Your task to perform on an android device: Go to settings Image 0: 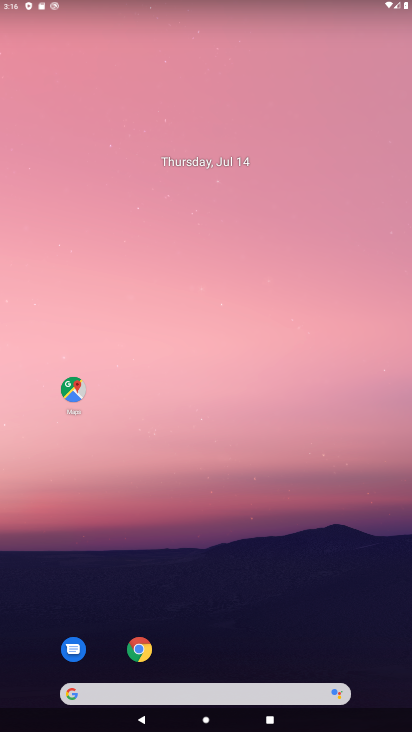
Step 0: drag from (217, 668) to (221, 161)
Your task to perform on an android device: Go to settings Image 1: 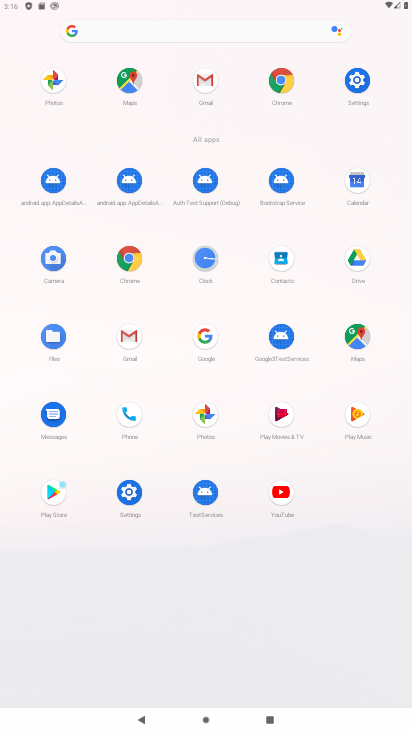
Step 1: click (124, 502)
Your task to perform on an android device: Go to settings Image 2: 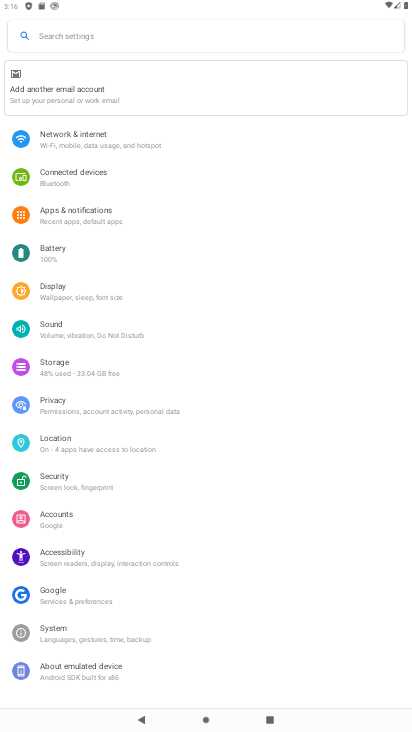
Step 2: task complete